Your task to perform on an android device: change the clock style Image 0: 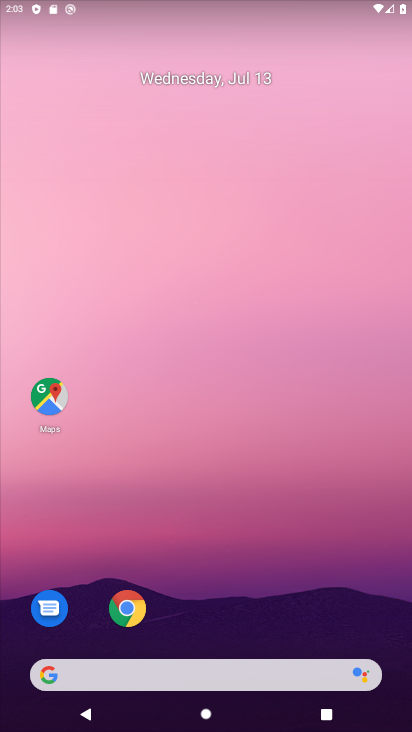
Step 0: drag from (251, 443) to (234, 333)
Your task to perform on an android device: change the clock style Image 1: 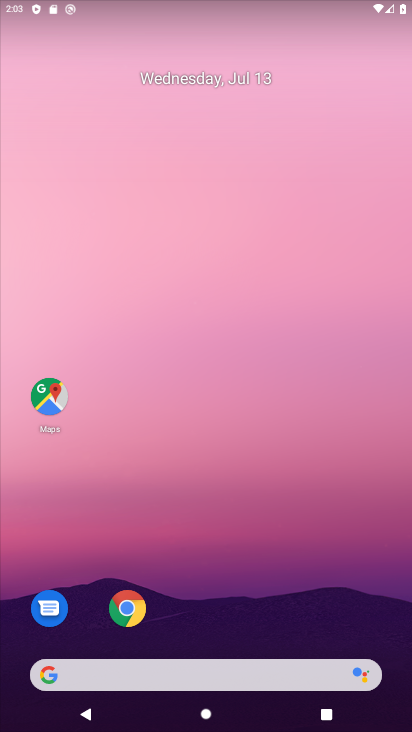
Step 1: click (234, 333)
Your task to perform on an android device: change the clock style Image 2: 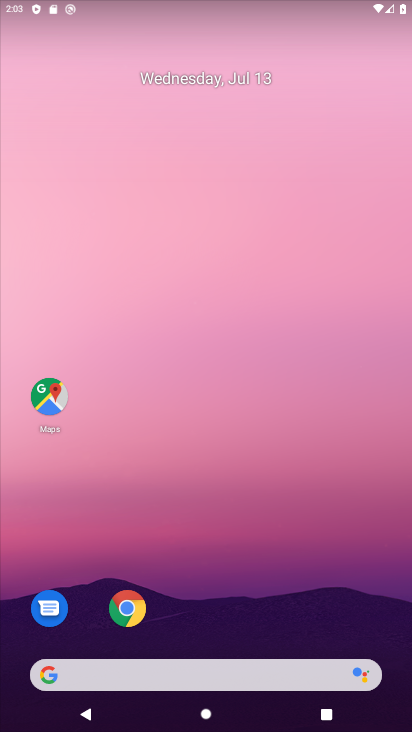
Step 2: drag from (141, 652) to (91, 107)
Your task to perform on an android device: change the clock style Image 3: 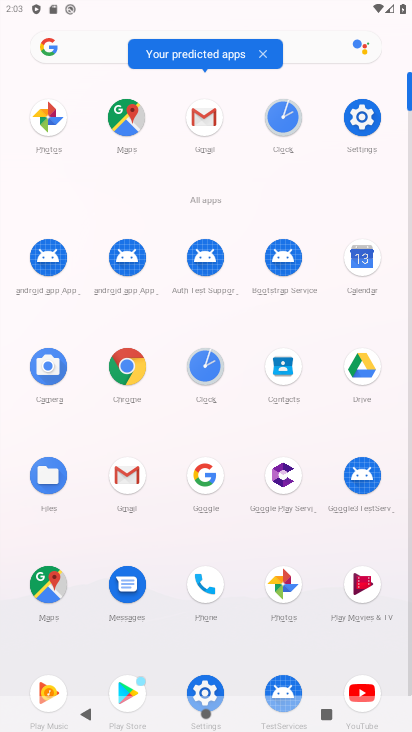
Step 3: click (210, 362)
Your task to perform on an android device: change the clock style Image 4: 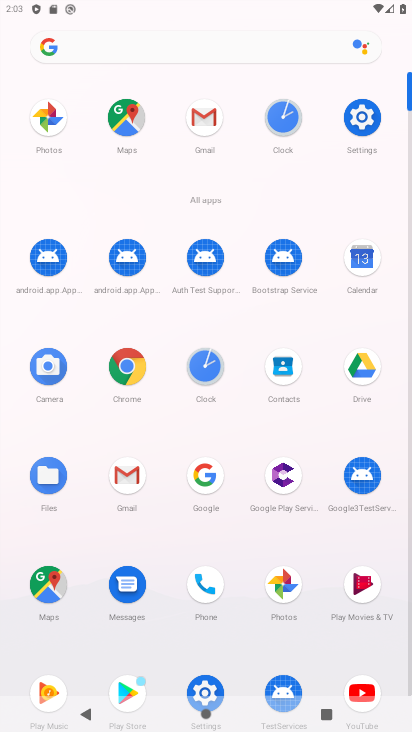
Step 4: click (210, 362)
Your task to perform on an android device: change the clock style Image 5: 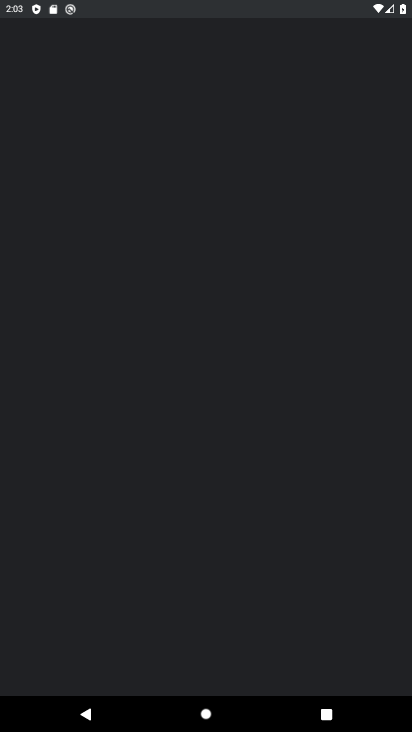
Step 5: click (197, 356)
Your task to perform on an android device: change the clock style Image 6: 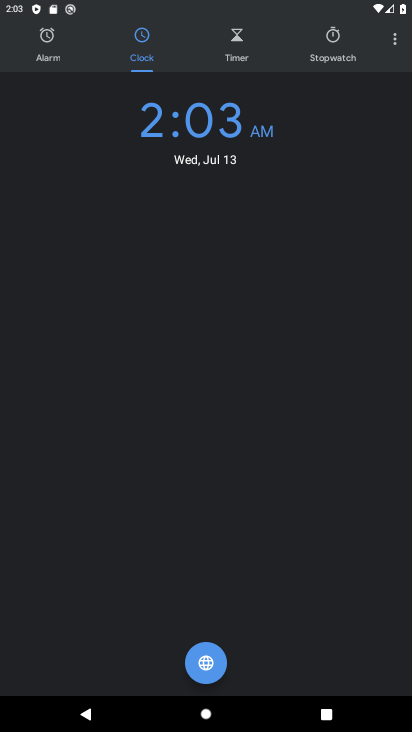
Step 6: click (399, 42)
Your task to perform on an android device: change the clock style Image 7: 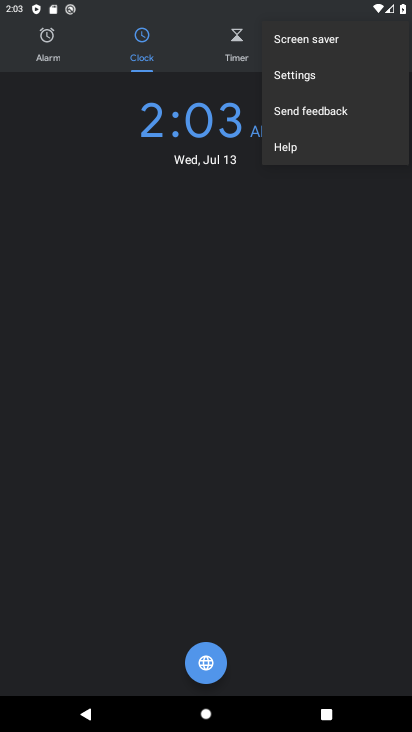
Step 7: click (308, 69)
Your task to perform on an android device: change the clock style Image 8: 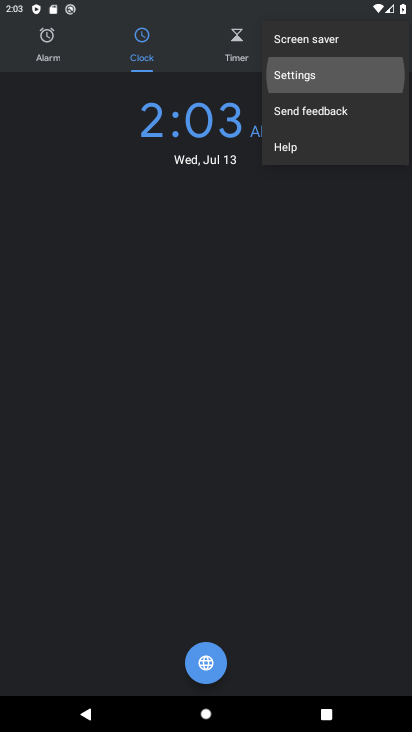
Step 8: click (308, 69)
Your task to perform on an android device: change the clock style Image 9: 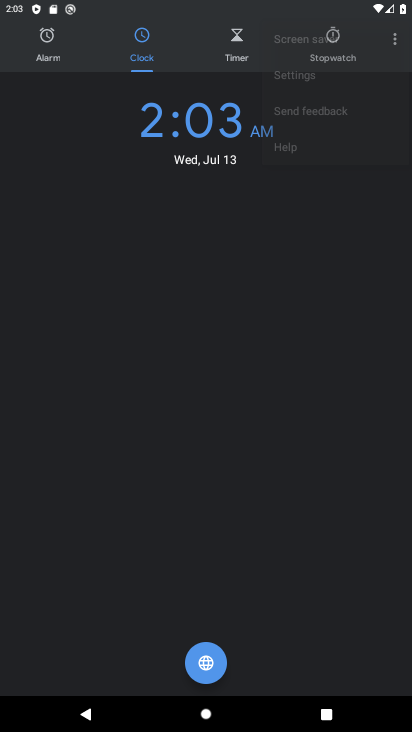
Step 9: click (308, 69)
Your task to perform on an android device: change the clock style Image 10: 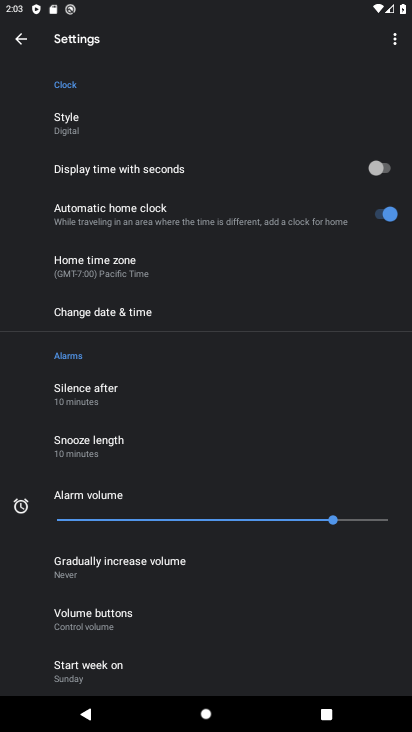
Step 10: click (91, 119)
Your task to perform on an android device: change the clock style Image 11: 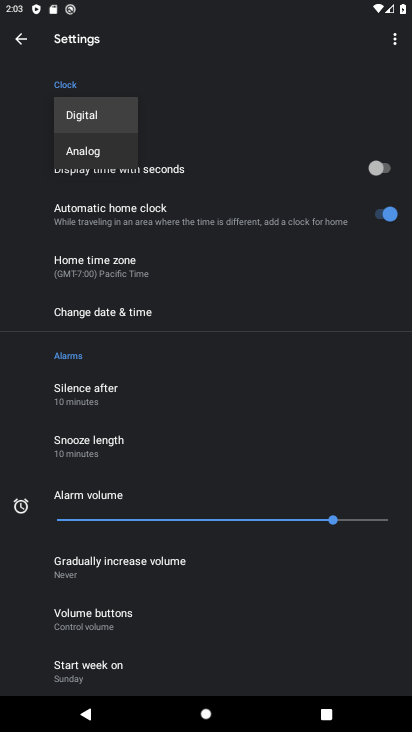
Step 11: click (95, 166)
Your task to perform on an android device: change the clock style Image 12: 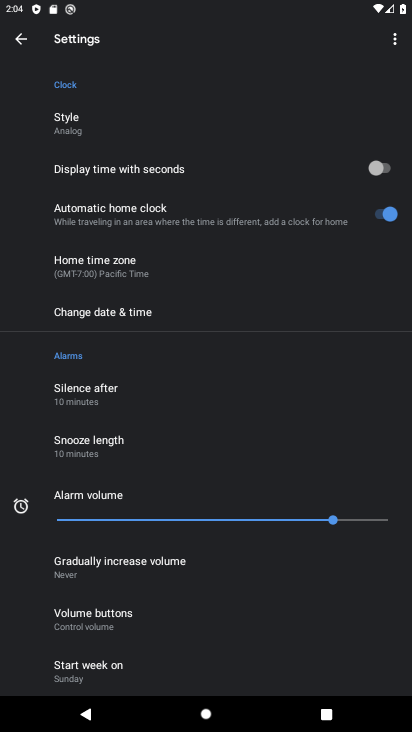
Step 12: click (75, 124)
Your task to perform on an android device: change the clock style Image 13: 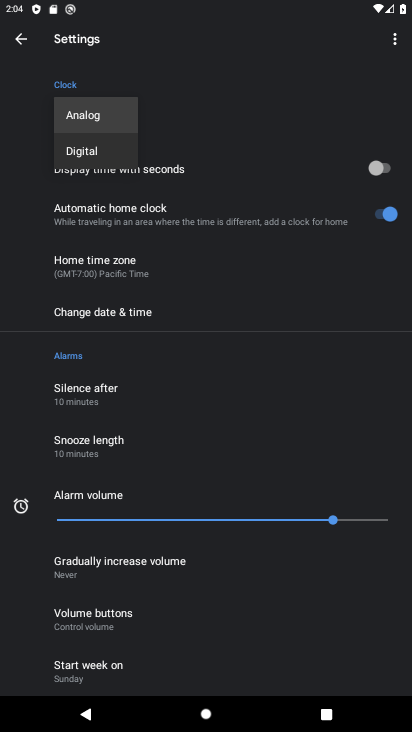
Step 13: click (378, 155)
Your task to perform on an android device: change the clock style Image 14: 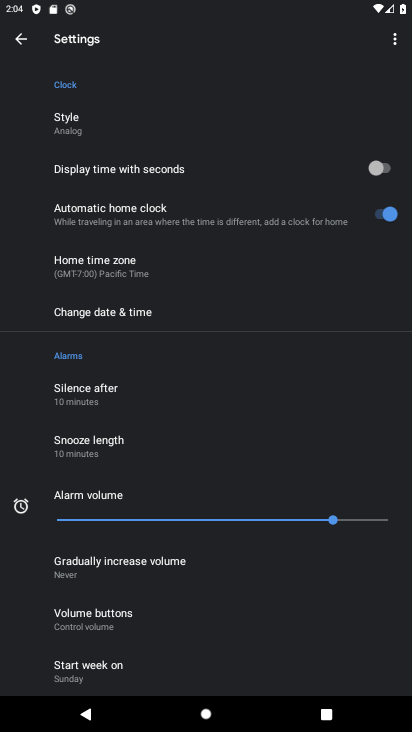
Step 14: click (67, 127)
Your task to perform on an android device: change the clock style Image 15: 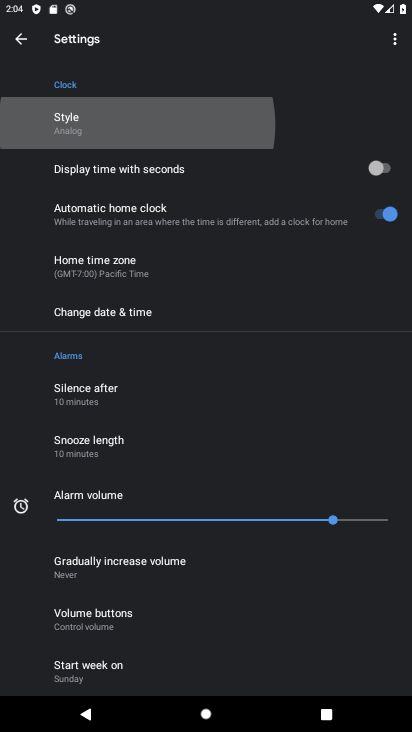
Step 15: click (67, 127)
Your task to perform on an android device: change the clock style Image 16: 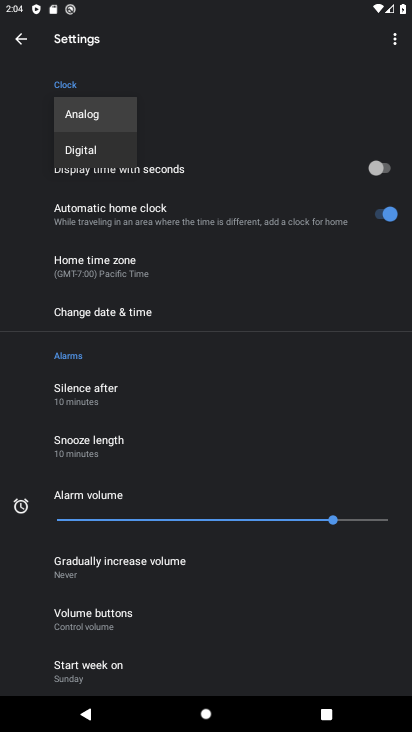
Step 16: click (65, 128)
Your task to perform on an android device: change the clock style Image 17: 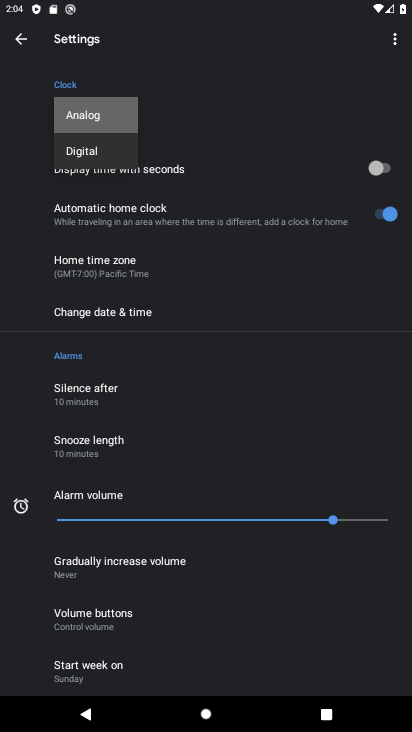
Step 17: click (65, 128)
Your task to perform on an android device: change the clock style Image 18: 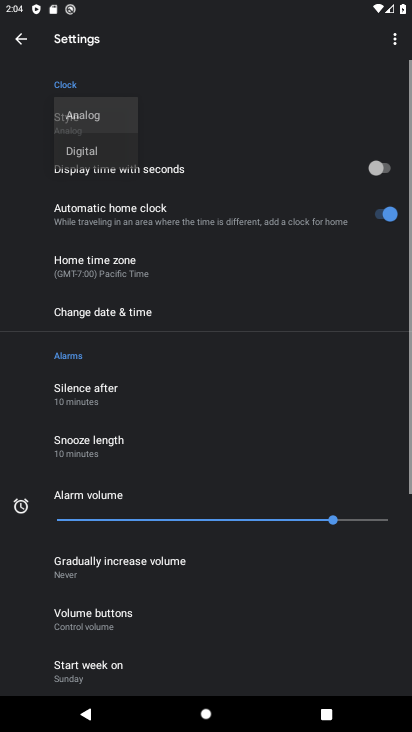
Step 18: click (65, 128)
Your task to perform on an android device: change the clock style Image 19: 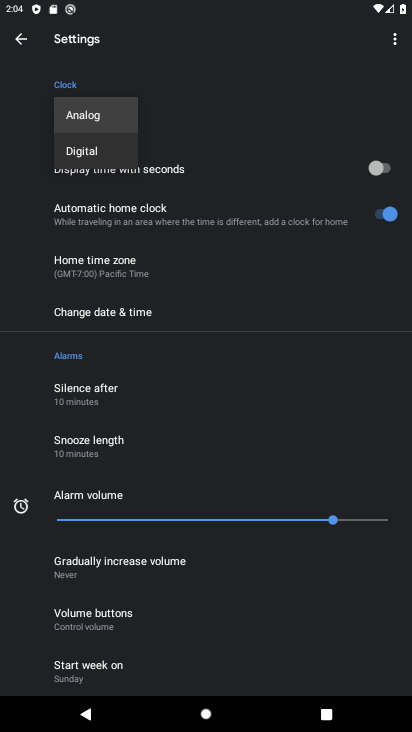
Step 19: click (101, 185)
Your task to perform on an android device: change the clock style Image 20: 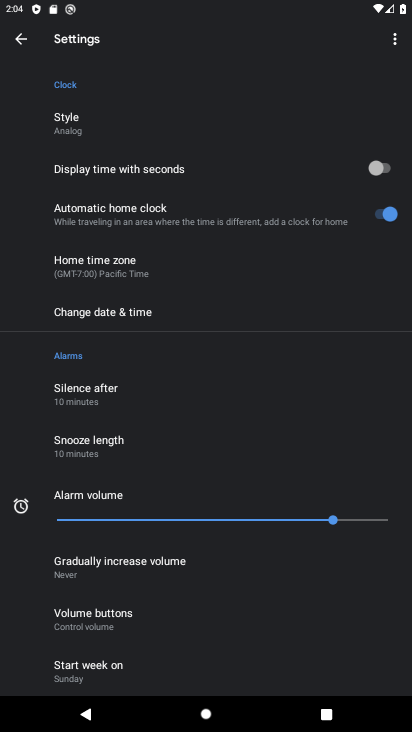
Step 20: click (83, 130)
Your task to perform on an android device: change the clock style Image 21: 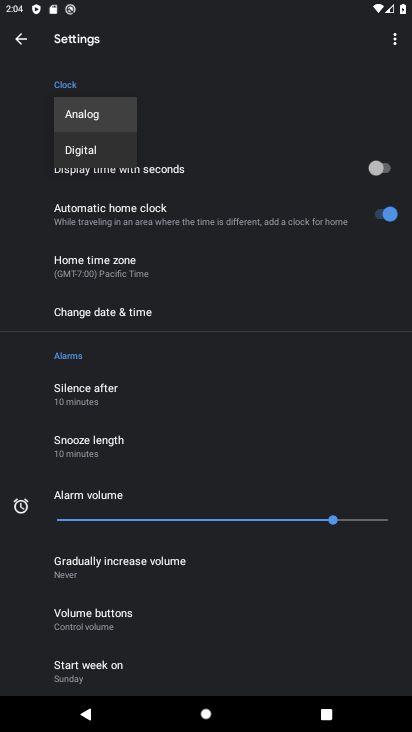
Step 21: click (83, 130)
Your task to perform on an android device: change the clock style Image 22: 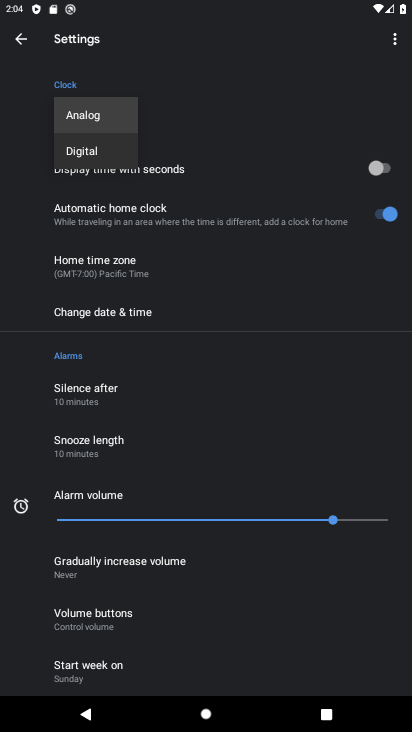
Step 22: click (86, 136)
Your task to perform on an android device: change the clock style Image 23: 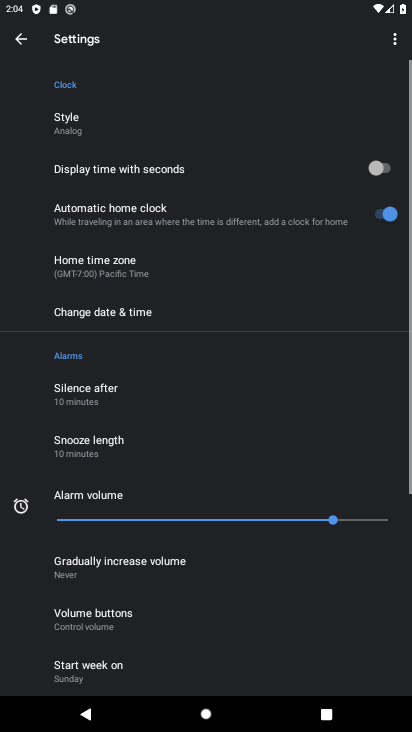
Step 23: click (71, 161)
Your task to perform on an android device: change the clock style Image 24: 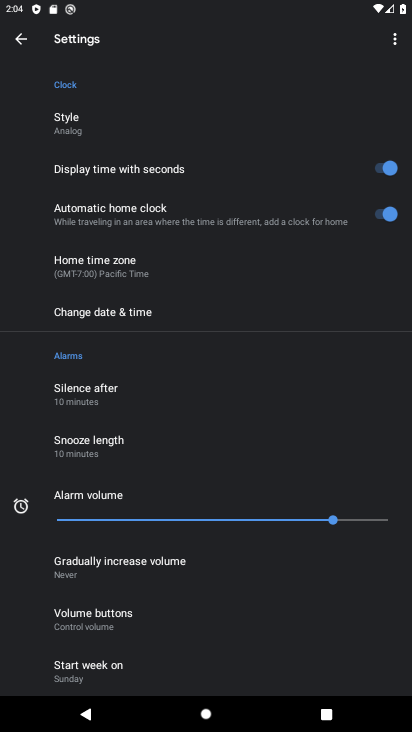
Step 24: task complete